Your task to perform on an android device: View the shopping cart on ebay.com. Search for apple airpods on ebay.com, select the first entry, add it to the cart, then select checkout. Image 0: 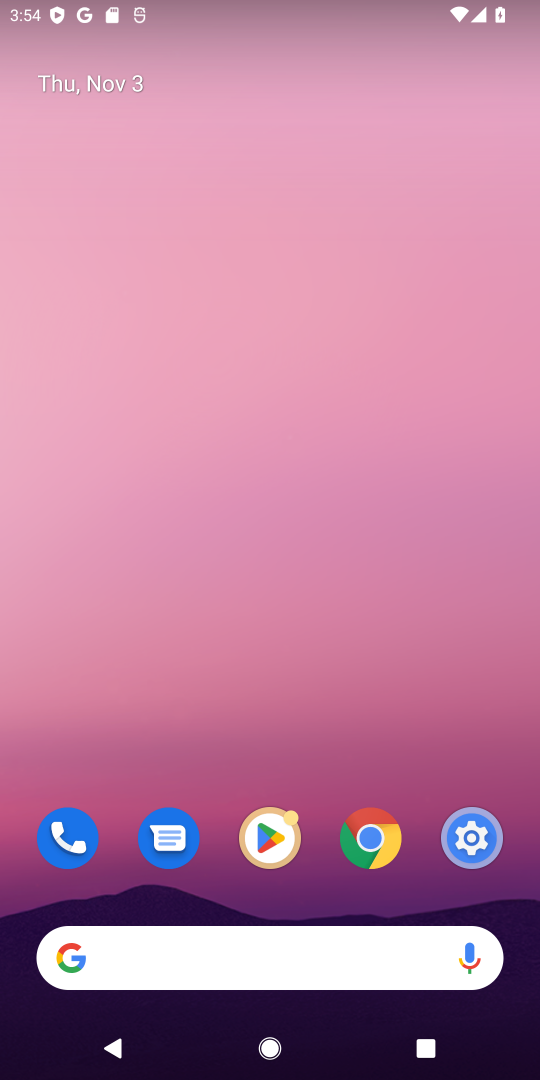
Step 0: click (377, 841)
Your task to perform on an android device: View the shopping cart on ebay.com. Search for apple airpods on ebay.com, select the first entry, add it to the cart, then select checkout. Image 1: 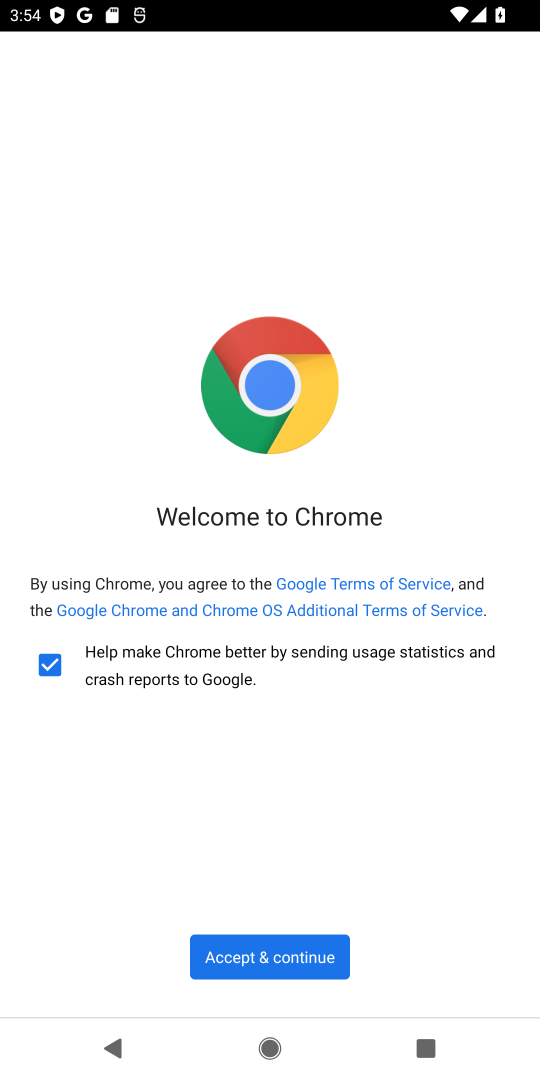
Step 1: click (249, 947)
Your task to perform on an android device: View the shopping cart on ebay.com. Search for apple airpods on ebay.com, select the first entry, add it to the cart, then select checkout. Image 2: 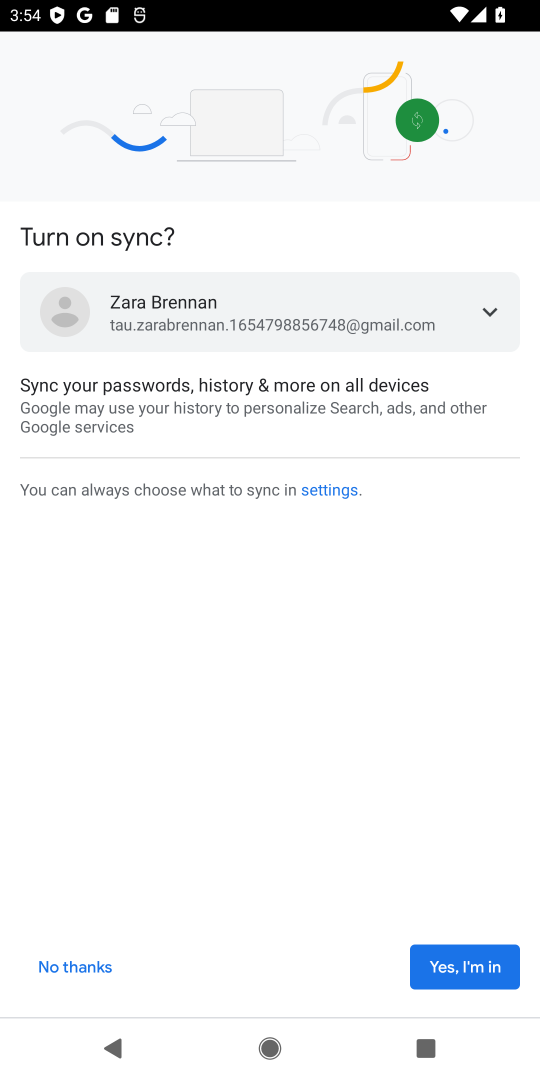
Step 2: click (474, 969)
Your task to perform on an android device: View the shopping cart on ebay.com. Search for apple airpods on ebay.com, select the first entry, add it to the cart, then select checkout. Image 3: 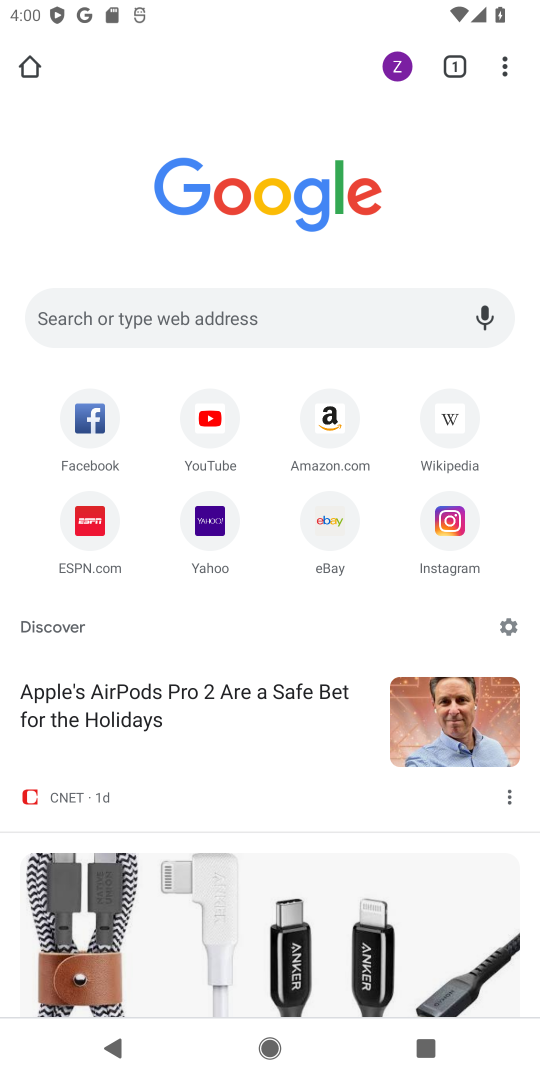
Step 3: task complete